Your task to perform on an android device: Open wifi settings Image 0: 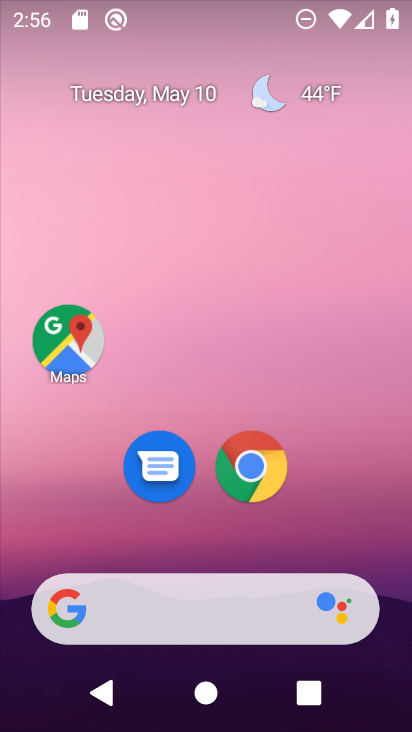
Step 0: drag from (294, 500) to (299, 48)
Your task to perform on an android device: Open wifi settings Image 1: 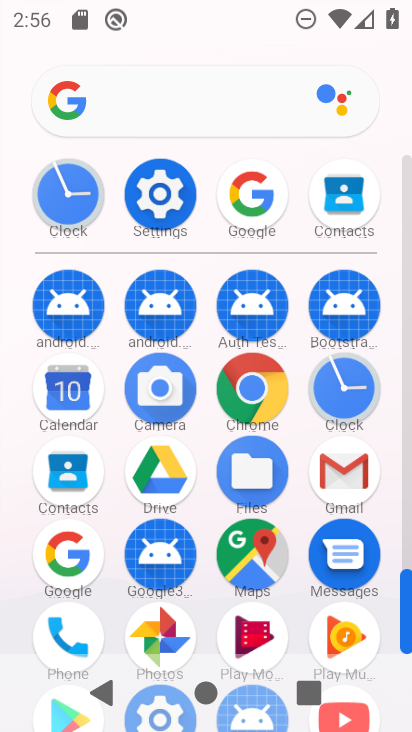
Step 1: click (140, 197)
Your task to perform on an android device: Open wifi settings Image 2: 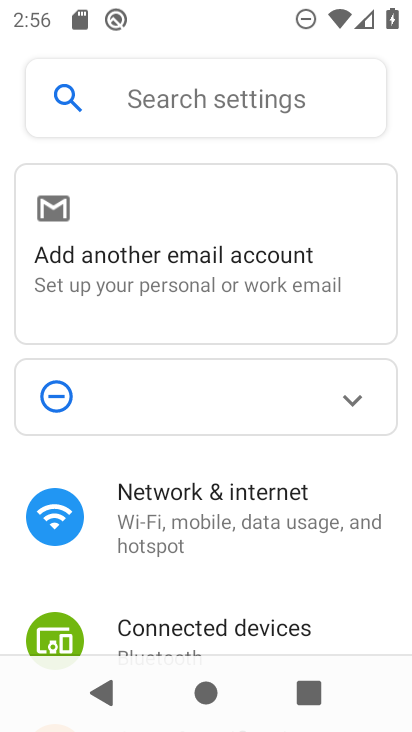
Step 2: click (192, 494)
Your task to perform on an android device: Open wifi settings Image 3: 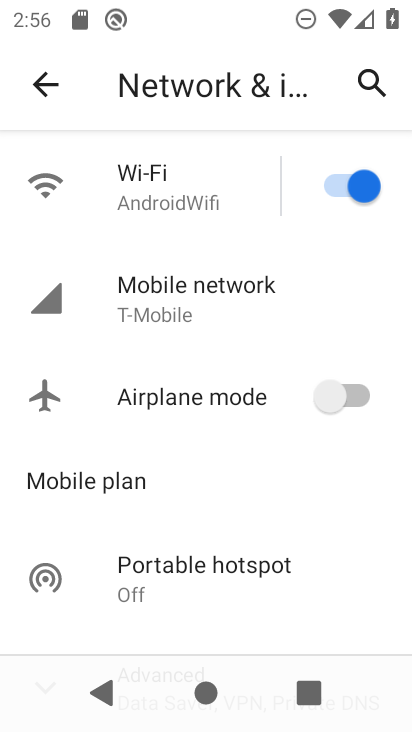
Step 3: click (155, 192)
Your task to perform on an android device: Open wifi settings Image 4: 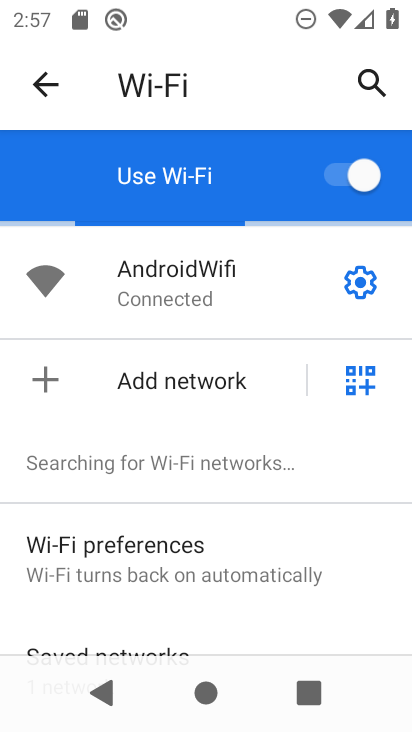
Step 4: task complete